Your task to perform on an android device: Go to Reddit.com Image 0: 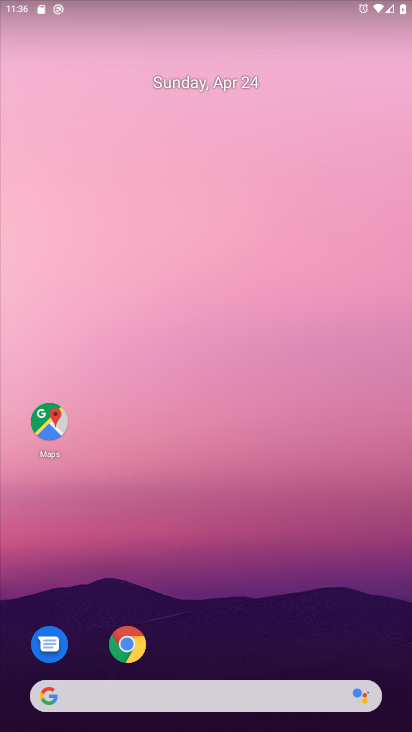
Step 0: click (238, 495)
Your task to perform on an android device: Go to Reddit.com Image 1: 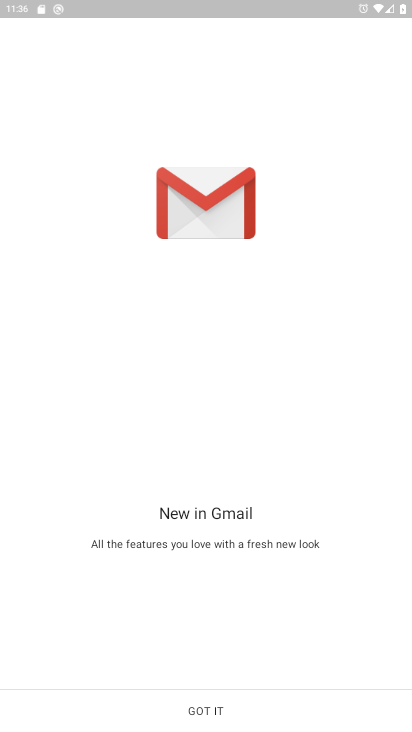
Step 1: click (225, 715)
Your task to perform on an android device: Go to Reddit.com Image 2: 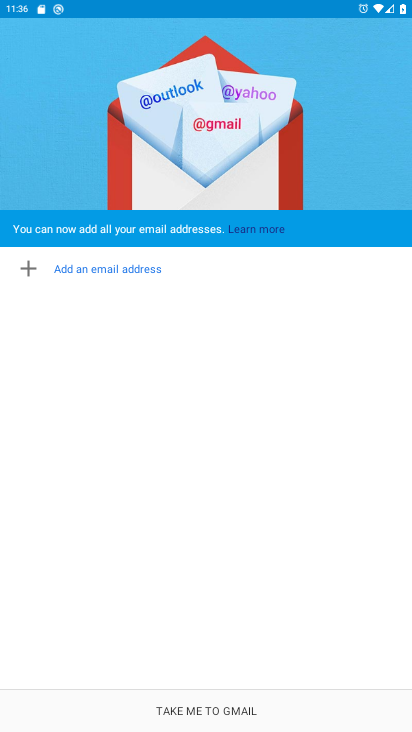
Step 2: press home button
Your task to perform on an android device: Go to Reddit.com Image 3: 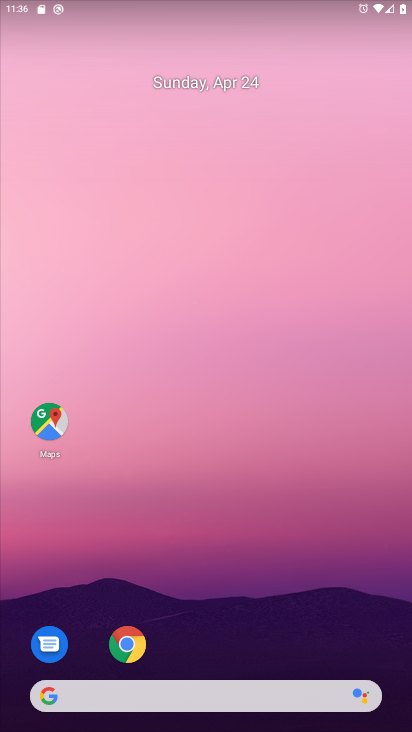
Step 3: click (124, 642)
Your task to perform on an android device: Go to Reddit.com Image 4: 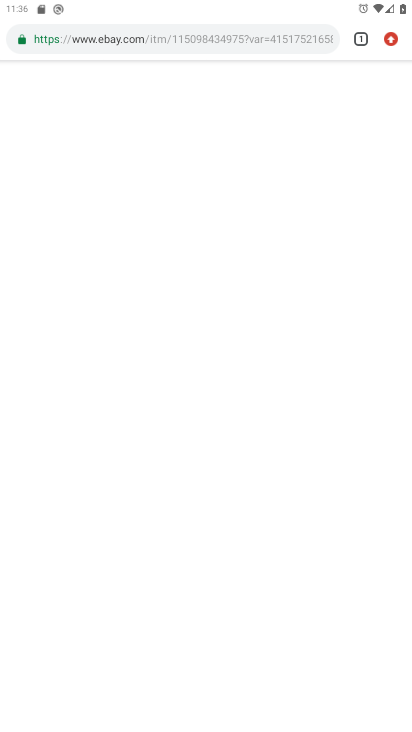
Step 4: click (205, 37)
Your task to perform on an android device: Go to Reddit.com Image 5: 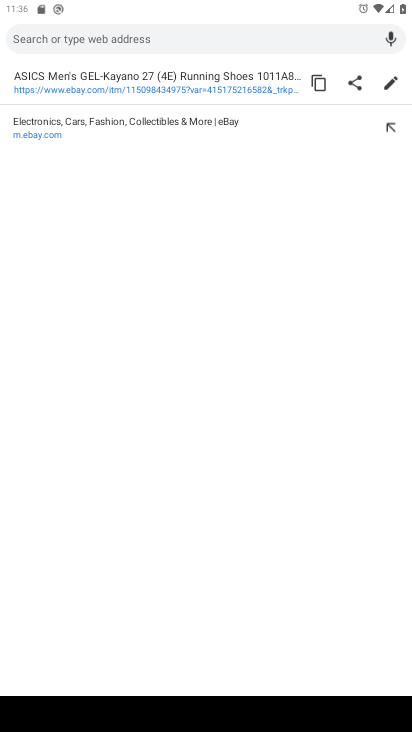
Step 5: type "Reddit.com"
Your task to perform on an android device: Go to Reddit.com Image 6: 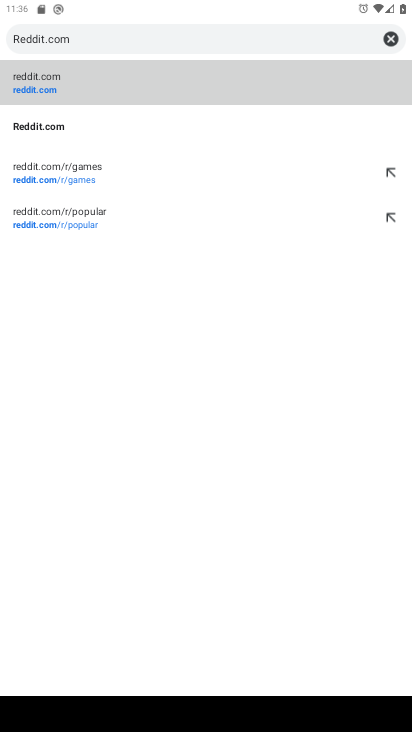
Step 6: click (105, 83)
Your task to perform on an android device: Go to Reddit.com Image 7: 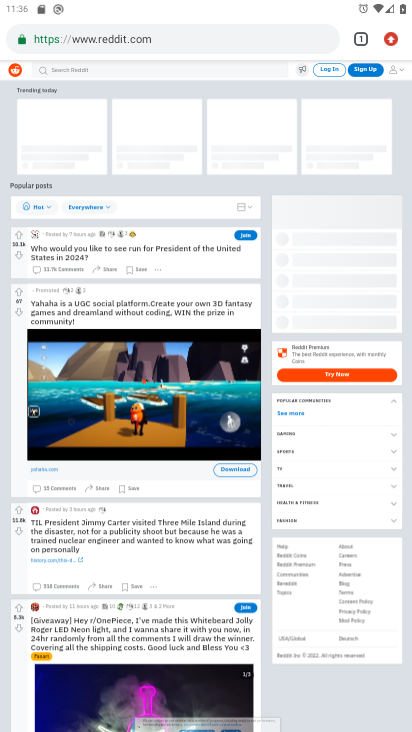
Step 7: task complete